Your task to perform on an android device: turn off sleep mode Image 0: 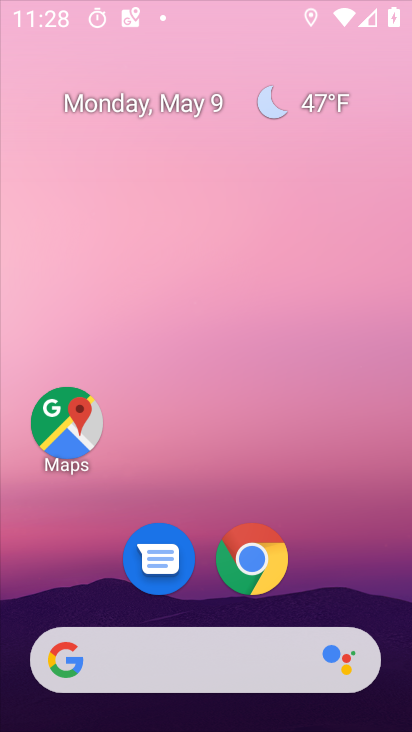
Step 0: drag from (328, 497) to (339, 74)
Your task to perform on an android device: turn off sleep mode Image 1: 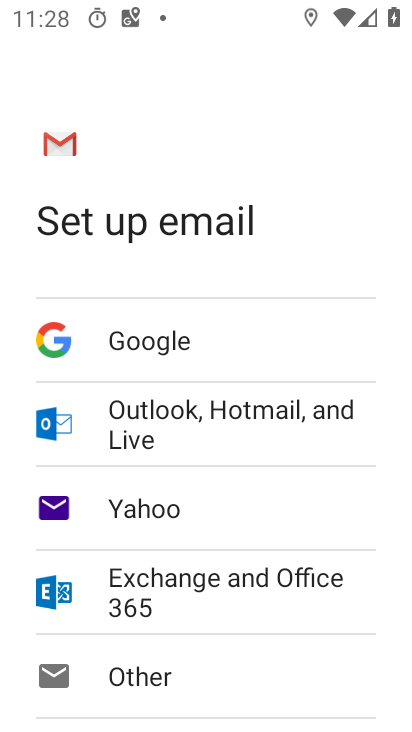
Step 1: press home button
Your task to perform on an android device: turn off sleep mode Image 2: 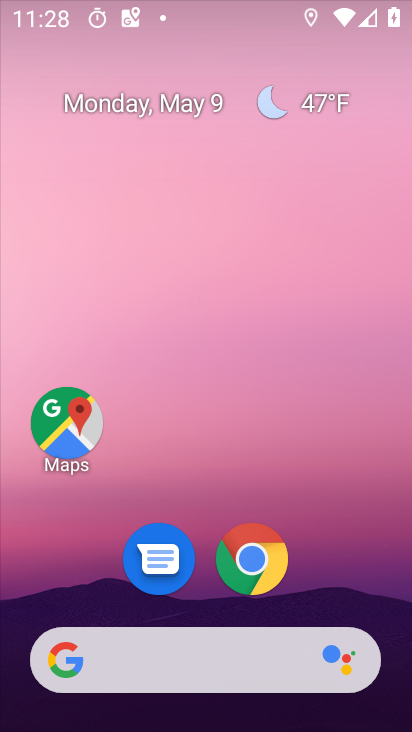
Step 2: drag from (357, 512) to (380, 1)
Your task to perform on an android device: turn off sleep mode Image 3: 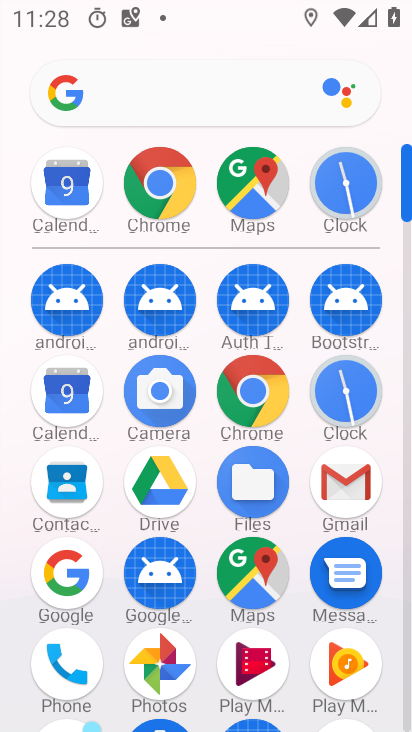
Step 3: click (405, 631)
Your task to perform on an android device: turn off sleep mode Image 4: 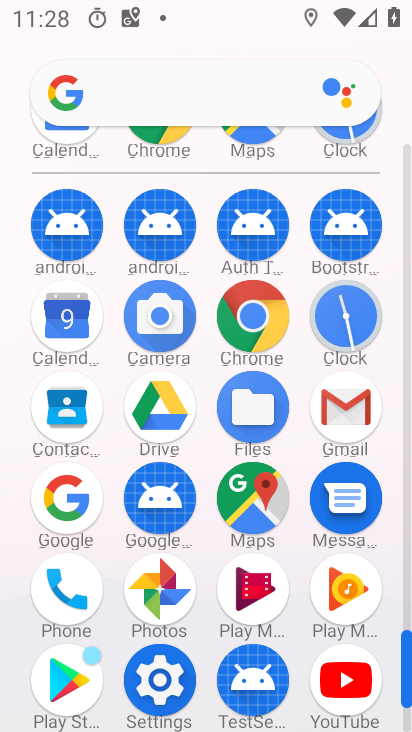
Step 4: click (145, 695)
Your task to perform on an android device: turn off sleep mode Image 5: 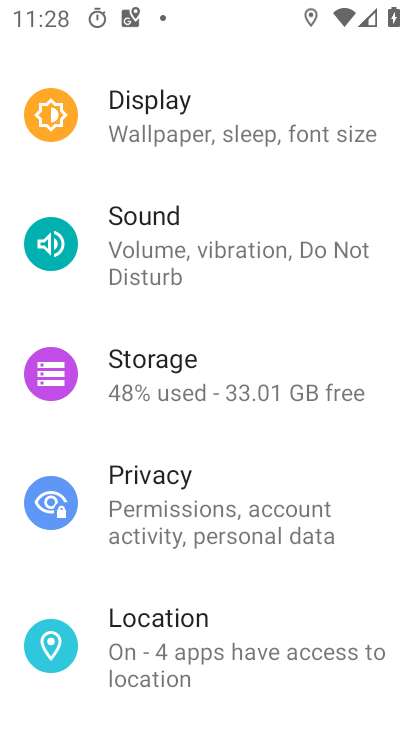
Step 5: click (216, 129)
Your task to perform on an android device: turn off sleep mode Image 6: 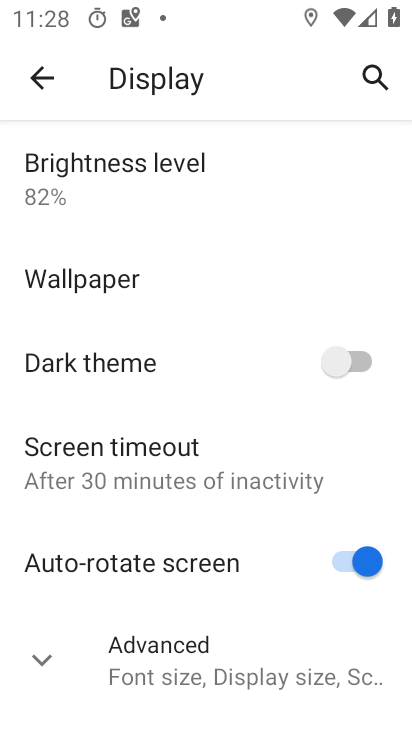
Step 6: task complete